Your task to perform on an android device: Open accessibility settings Image 0: 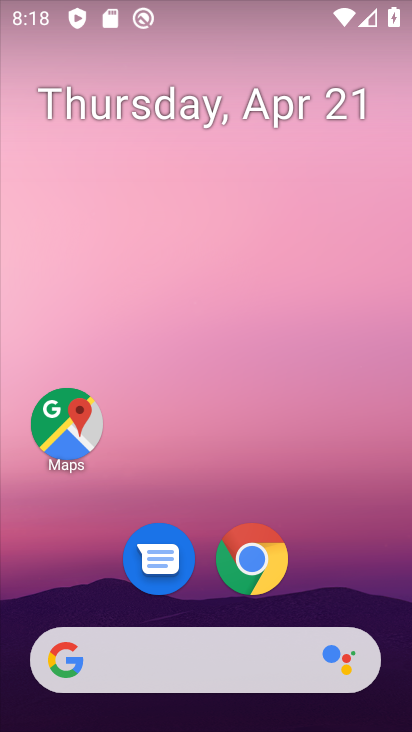
Step 0: drag from (315, 508) to (311, 163)
Your task to perform on an android device: Open accessibility settings Image 1: 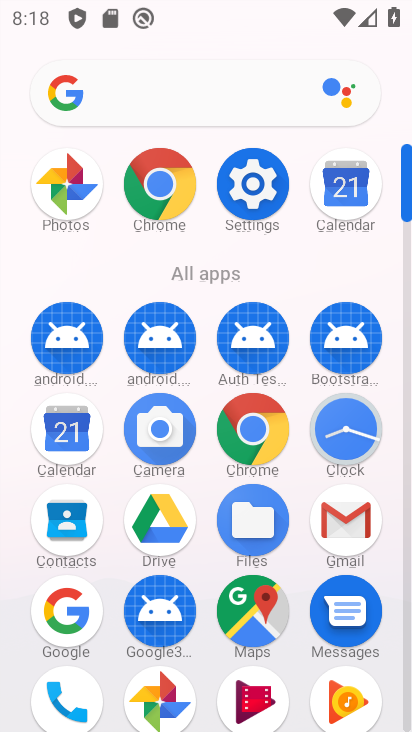
Step 1: click (260, 177)
Your task to perform on an android device: Open accessibility settings Image 2: 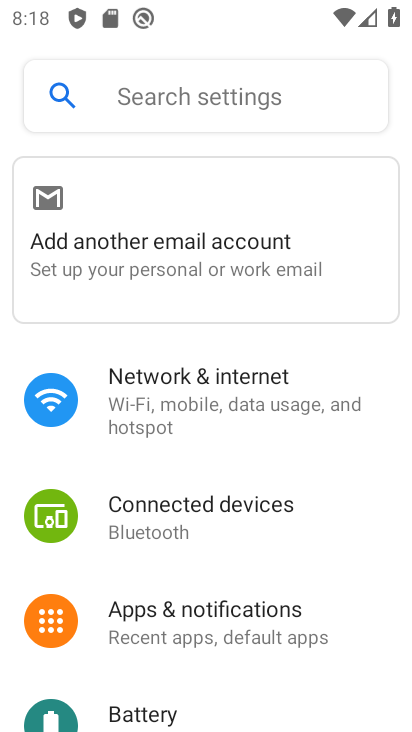
Step 2: drag from (242, 695) to (259, 328)
Your task to perform on an android device: Open accessibility settings Image 3: 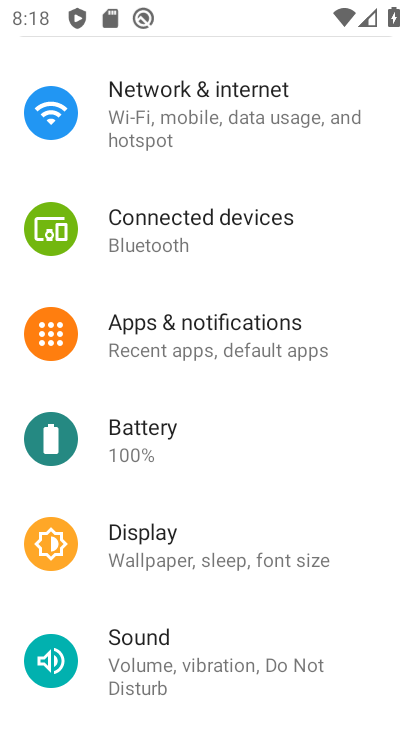
Step 3: drag from (250, 561) to (261, 303)
Your task to perform on an android device: Open accessibility settings Image 4: 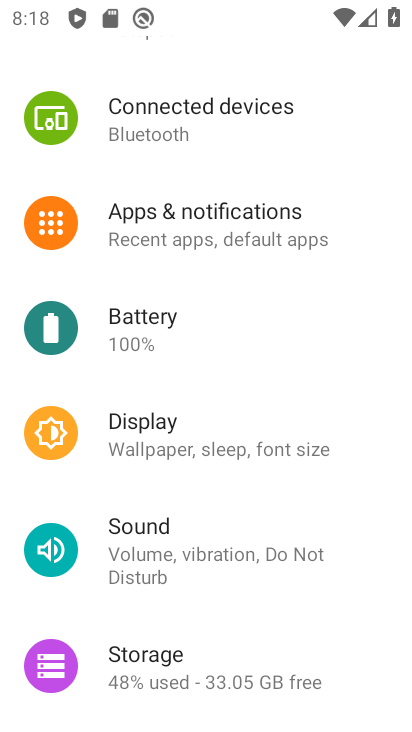
Step 4: drag from (269, 647) to (270, 331)
Your task to perform on an android device: Open accessibility settings Image 5: 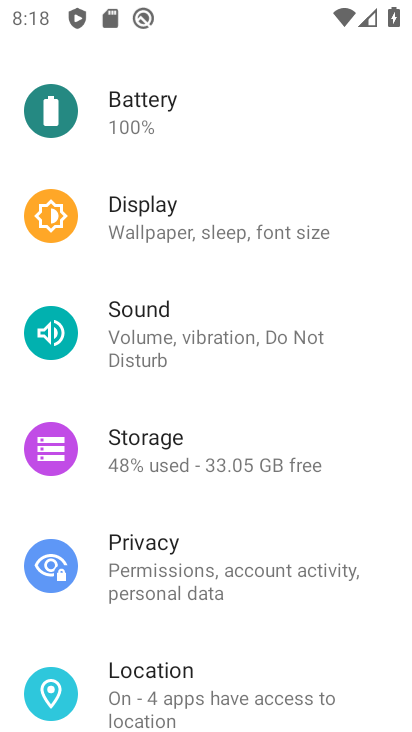
Step 5: drag from (272, 629) to (286, 203)
Your task to perform on an android device: Open accessibility settings Image 6: 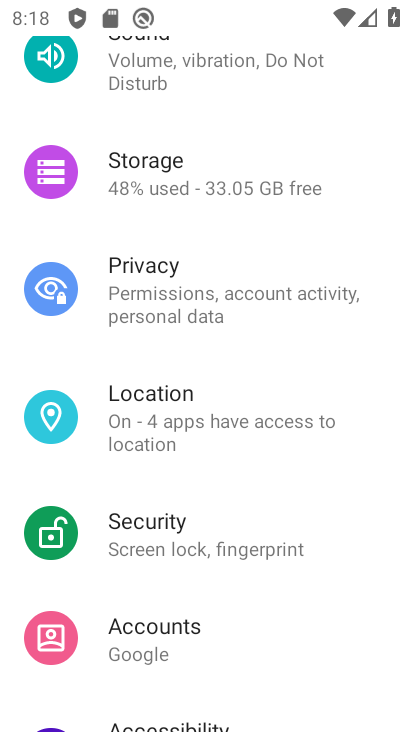
Step 6: drag from (292, 637) to (338, 206)
Your task to perform on an android device: Open accessibility settings Image 7: 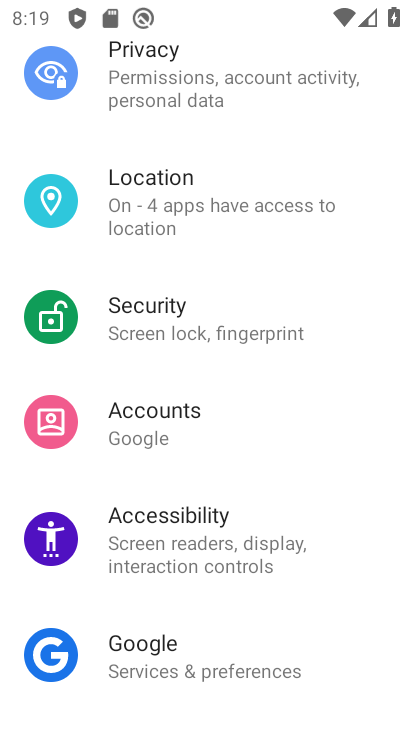
Step 7: click (217, 536)
Your task to perform on an android device: Open accessibility settings Image 8: 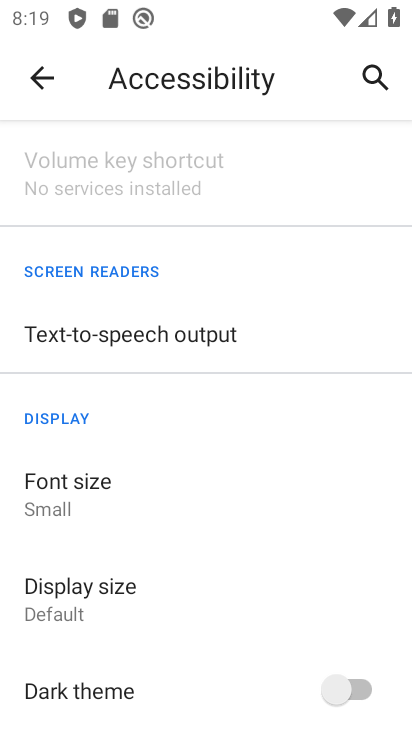
Step 8: task complete